Your task to perform on an android device: Turn on the flashlight Image 0: 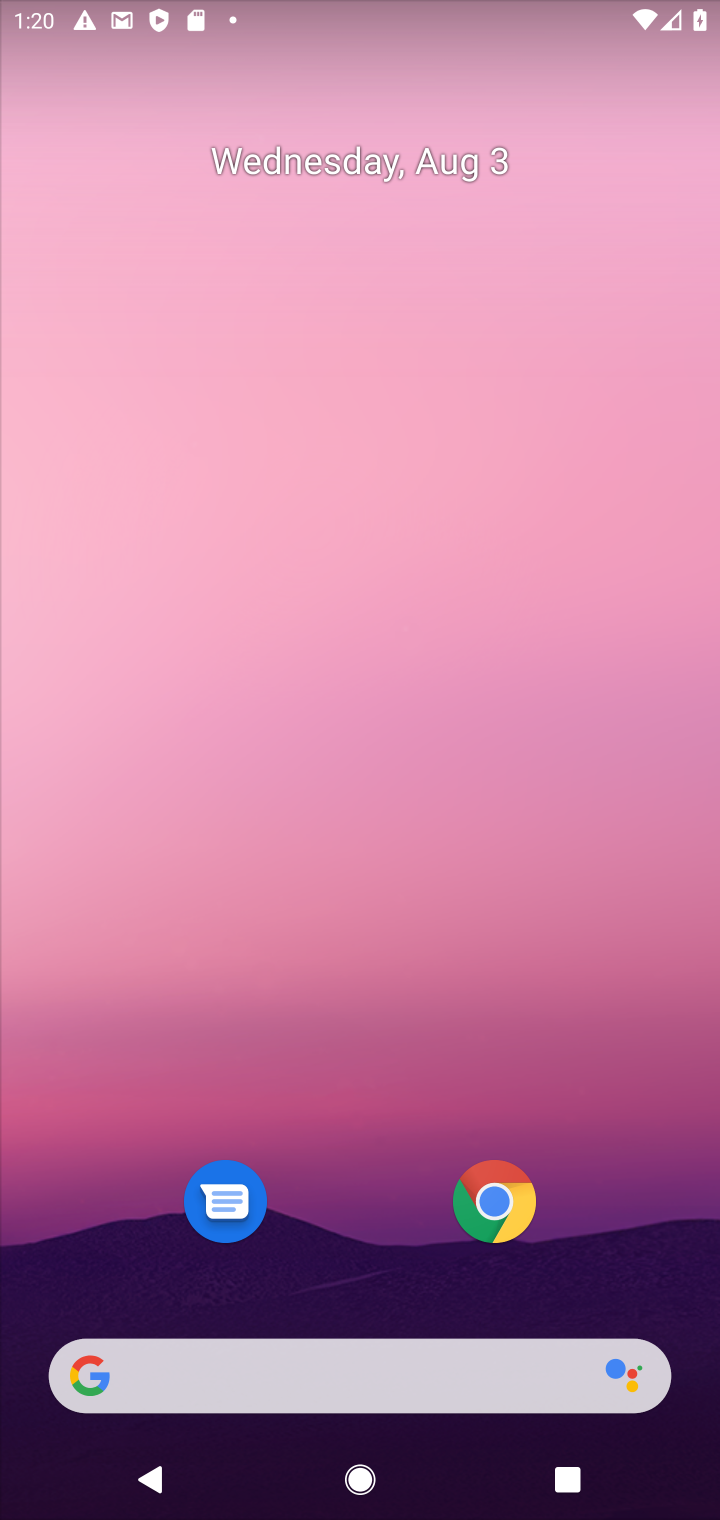
Step 0: drag from (459, 1012) to (531, 77)
Your task to perform on an android device: Turn on the flashlight Image 1: 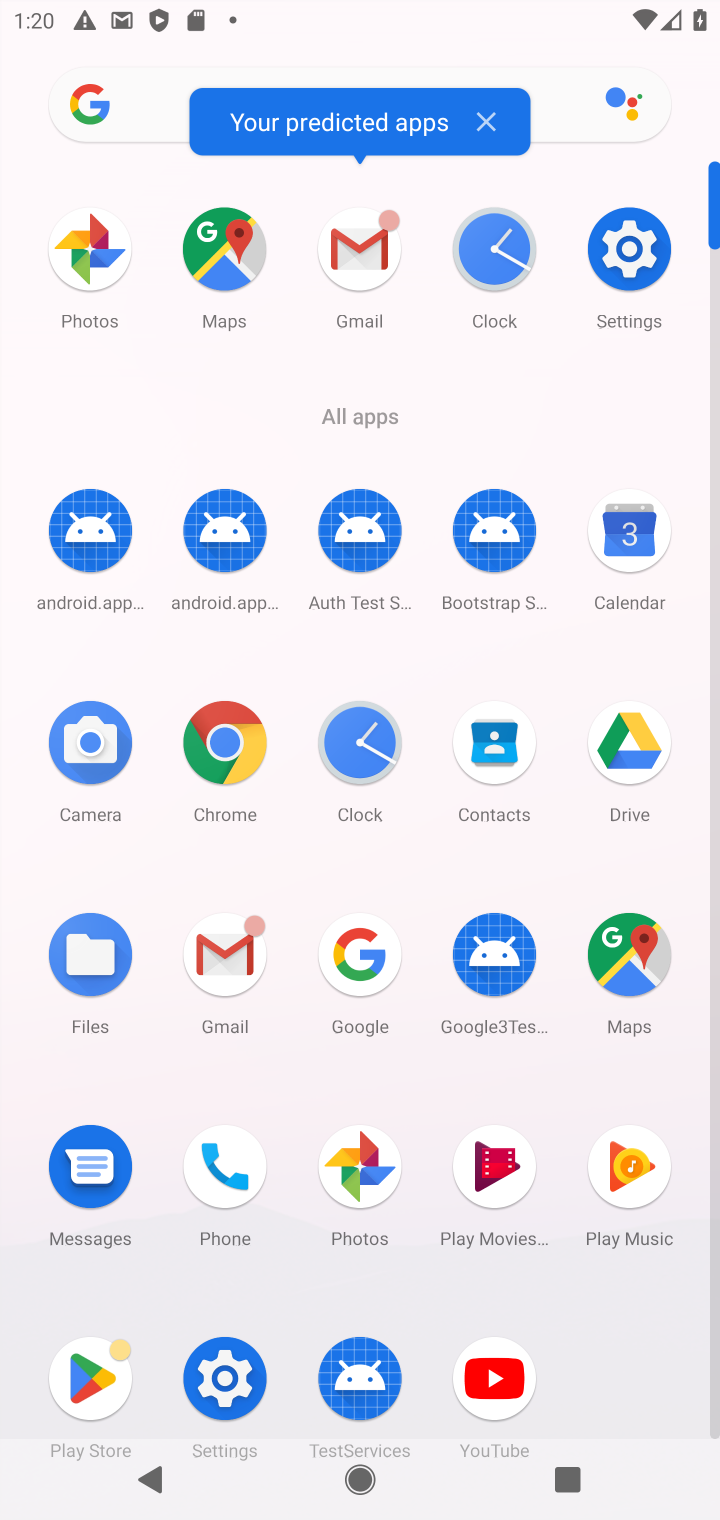
Step 1: click (633, 248)
Your task to perform on an android device: Turn on the flashlight Image 2: 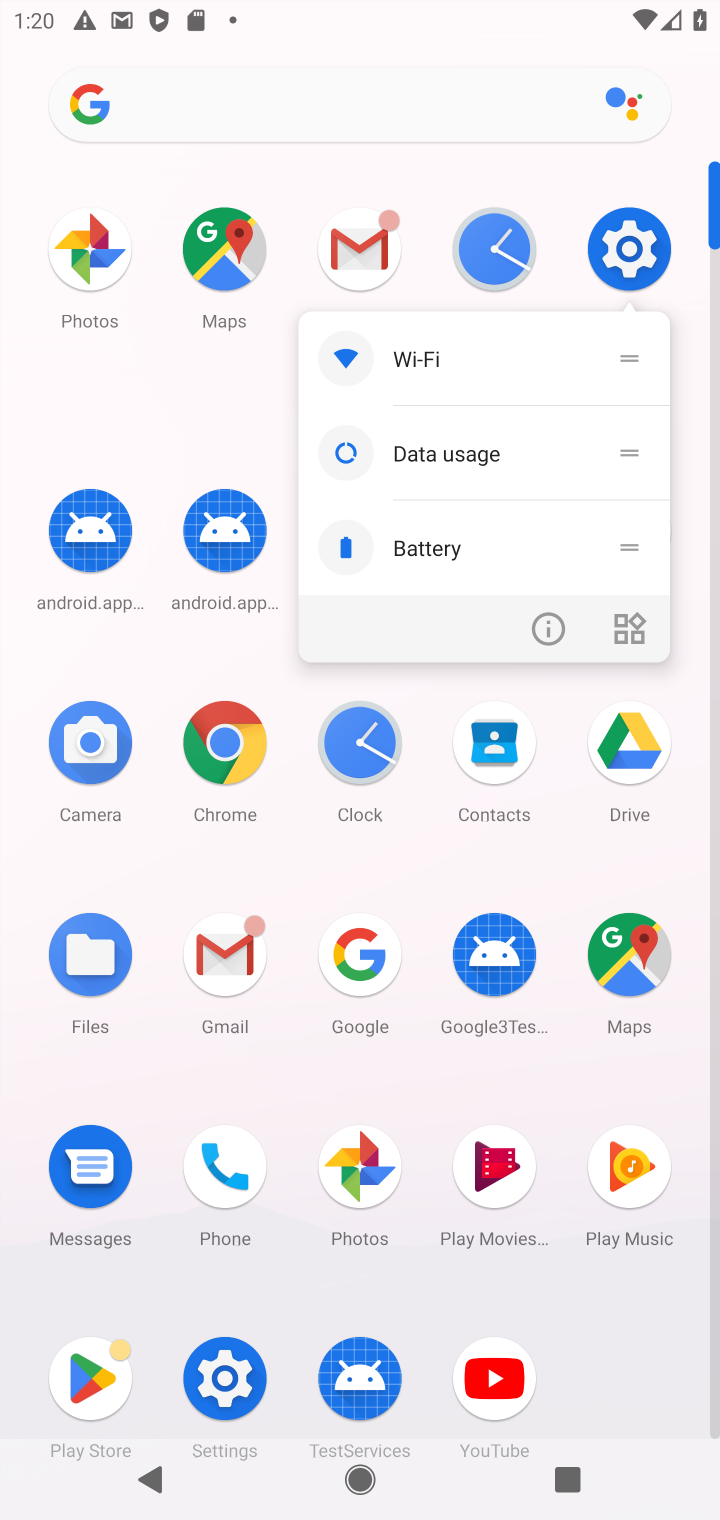
Step 2: task complete